Your task to perform on an android device: Go to notification settings Image 0: 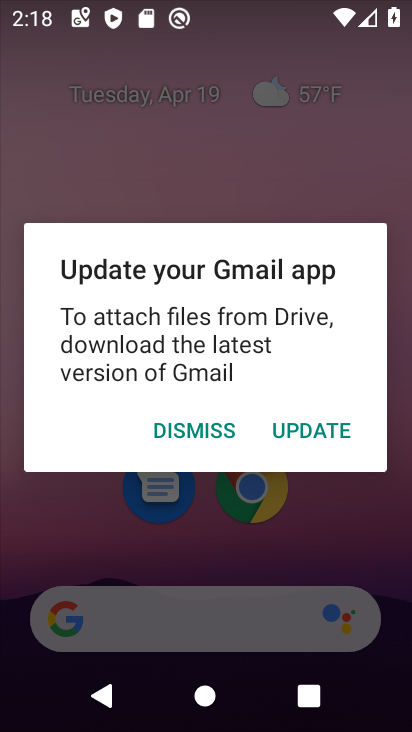
Step 0: press home button
Your task to perform on an android device: Go to notification settings Image 1: 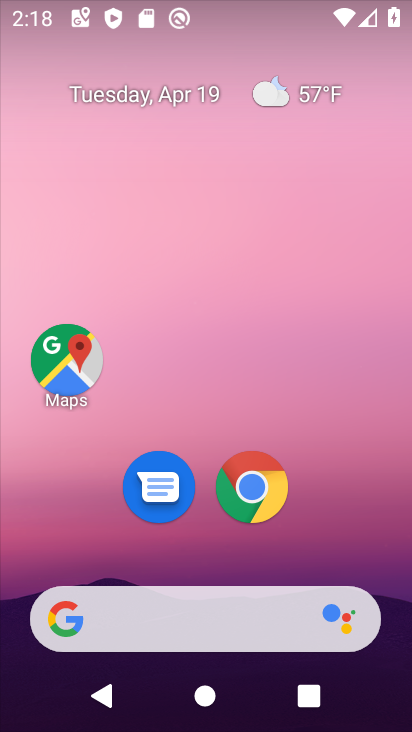
Step 1: drag from (213, 16) to (105, 727)
Your task to perform on an android device: Go to notification settings Image 2: 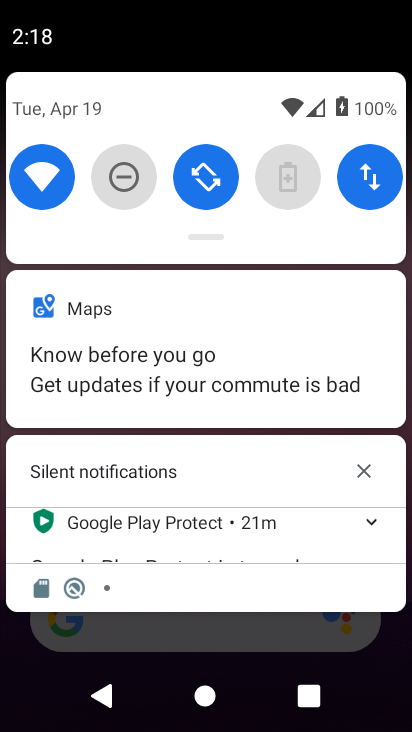
Step 2: drag from (207, 102) to (223, 693)
Your task to perform on an android device: Go to notification settings Image 3: 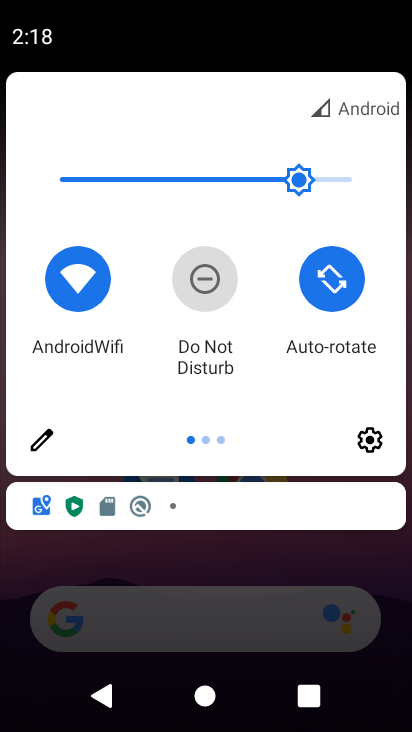
Step 3: click (370, 433)
Your task to perform on an android device: Go to notification settings Image 4: 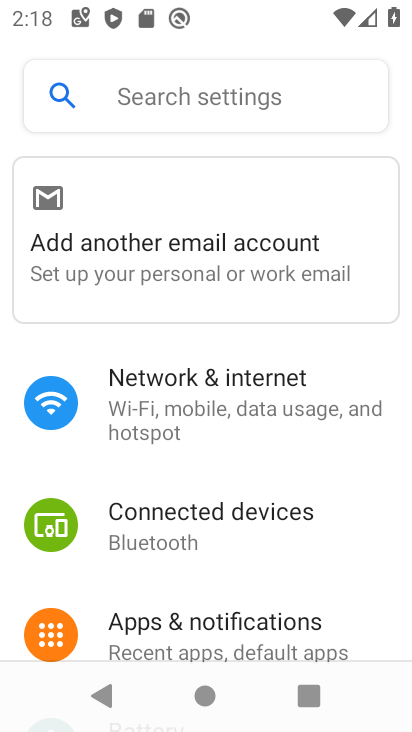
Step 4: click (153, 606)
Your task to perform on an android device: Go to notification settings Image 5: 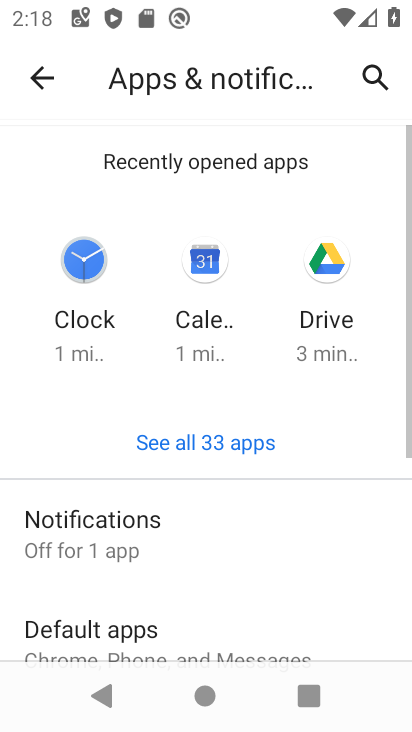
Step 5: task complete